Your task to perform on an android device: refresh tabs in the chrome app Image 0: 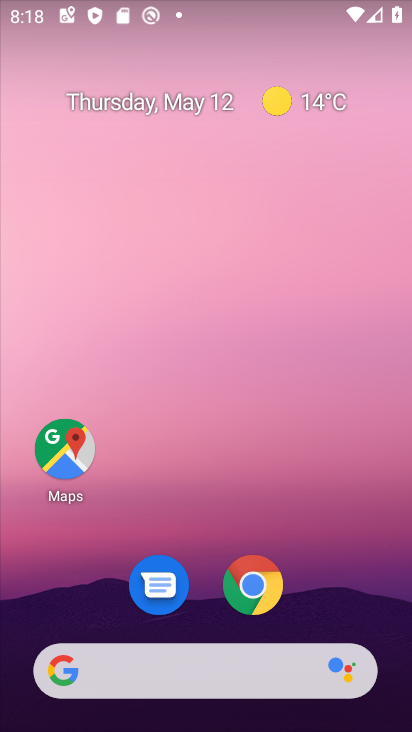
Step 0: click (258, 578)
Your task to perform on an android device: refresh tabs in the chrome app Image 1: 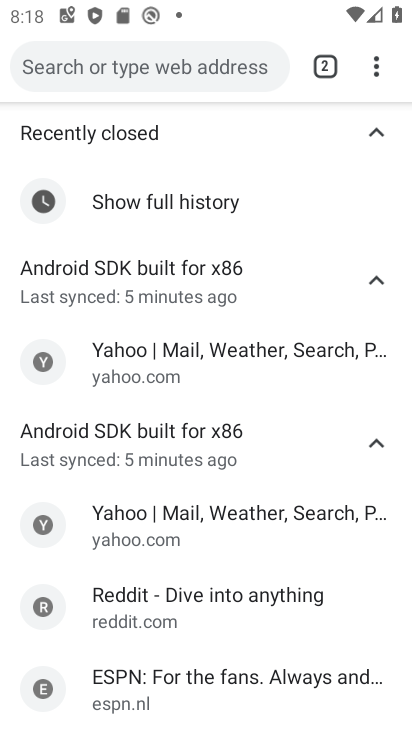
Step 1: click (376, 68)
Your task to perform on an android device: refresh tabs in the chrome app Image 2: 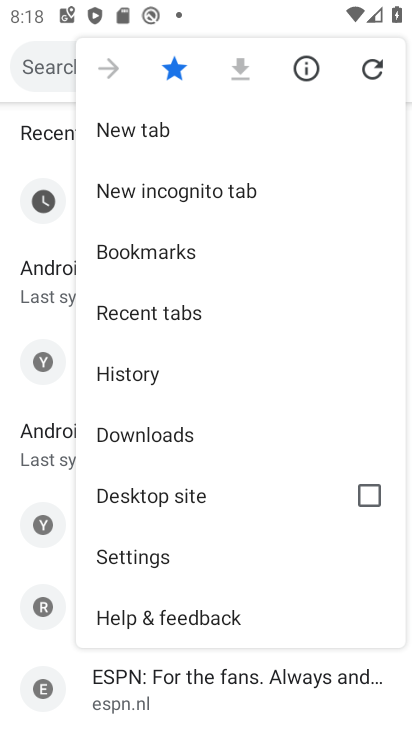
Step 2: click (372, 68)
Your task to perform on an android device: refresh tabs in the chrome app Image 3: 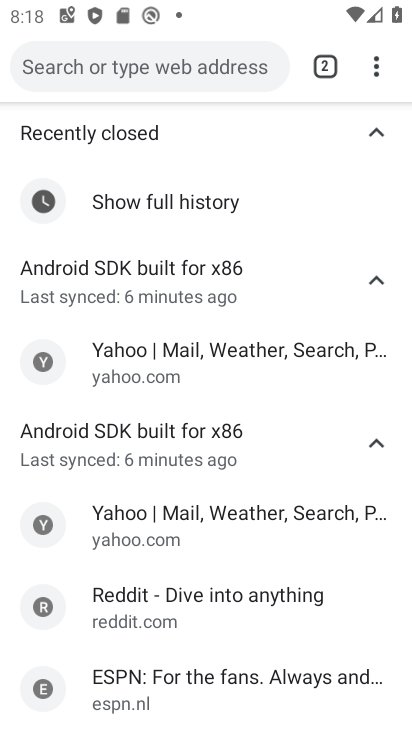
Step 3: task complete